Your task to perform on an android device: toggle notification dots Image 0: 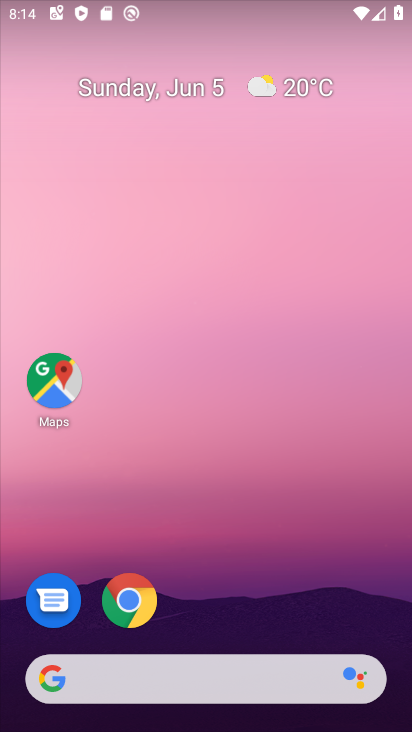
Step 0: press home button
Your task to perform on an android device: toggle notification dots Image 1: 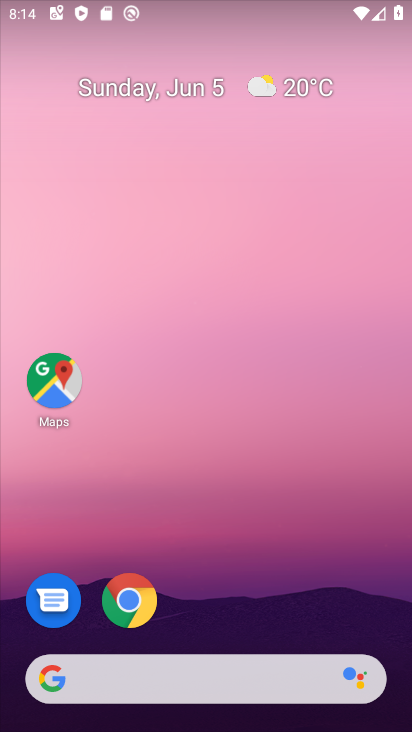
Step 1: press home button
Your task to perform on an android device: toggle notification dots Image 2: 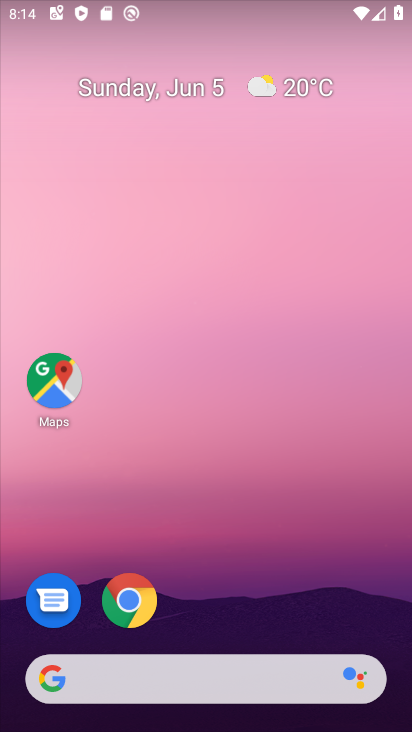
Step 2: drag from (152, 657) to (321, 182)
Your task to perform on an android device: toggle notification dots Image 3: 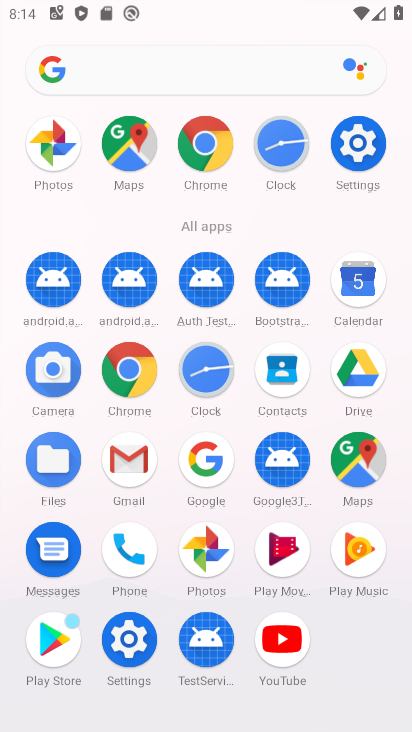
Step 3: drag from (180, 596) to (227, 453)
Your task to perform on an android device: toggle notification dots Image 4: 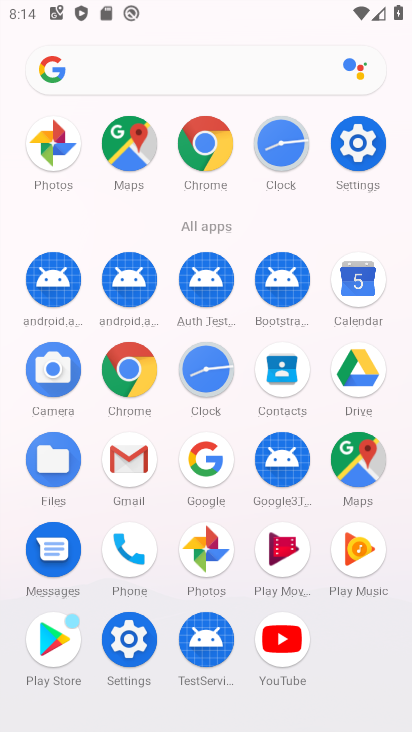
Step 4: click (127, 640)
Your task to perform on an android device: toggle notification dots Image 5: 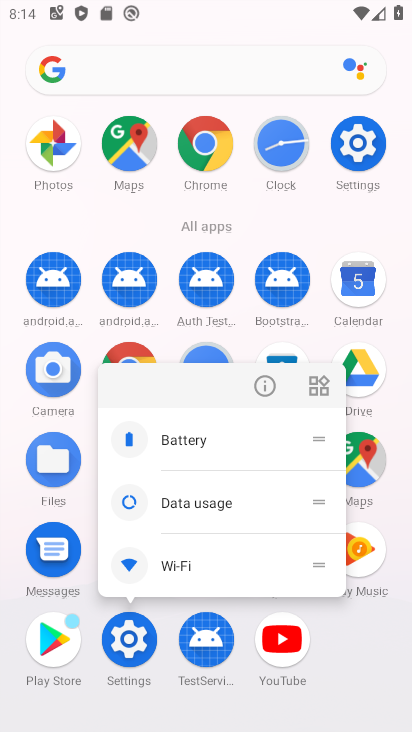
Step 5: click (130, 638)
Your task to perform on an android device: toggle notification dots Image 6: 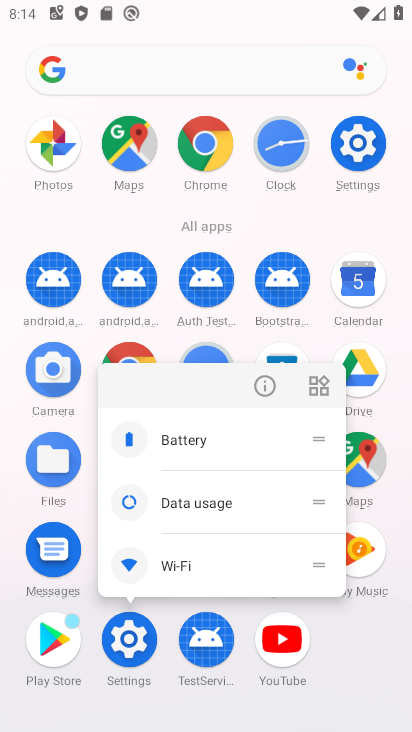
Step 6: click (134, 635)
Your task to perform on an android device: toggle notification dots Image 7: 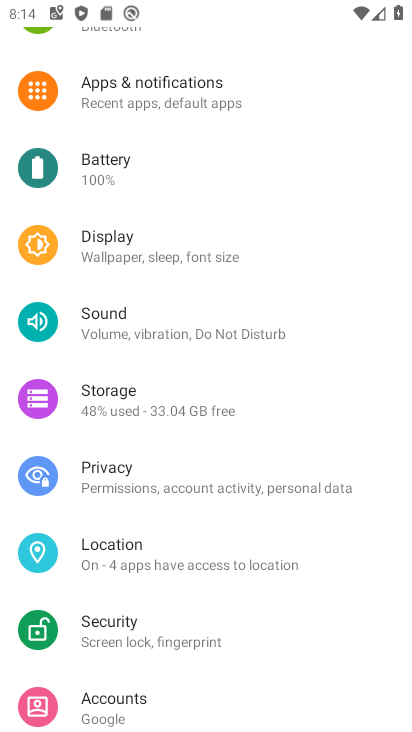
Step 7: drag from (206, 661) to (293, 361)
Your task to perform on an android device: toggle notification dots Image 8: 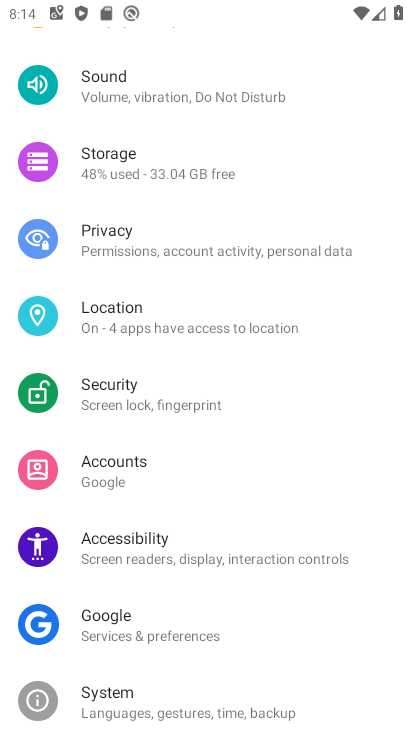
Step 8: drag from (203, 254) to (163, 609)
Your task to perform on an android device: toggle notification dots Image 9: 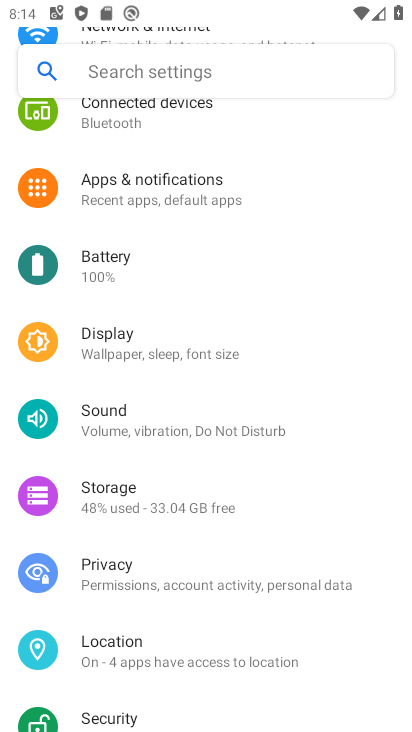
Step 9: click (202, 211)
Your task to perform on an android device: toggle notification dots Image 10: 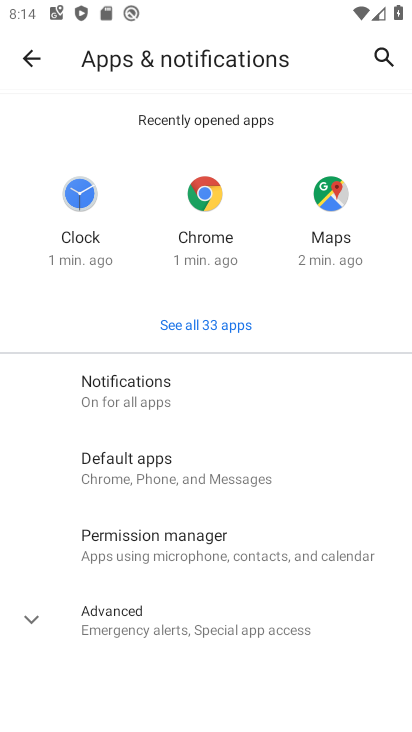
Step 10: click (227, 399)
Your task to perform on an android device: toggle notification dots Image 11: 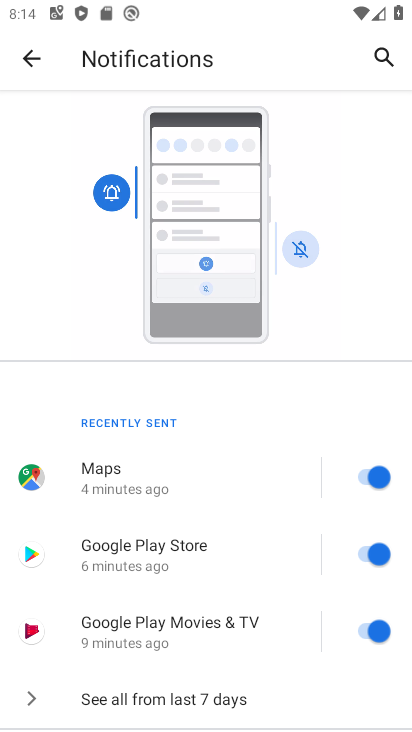
Step 11: drag from (148, 663) to (259, 310)
Your task to perform on an android device: toggle notification dots Image 12: 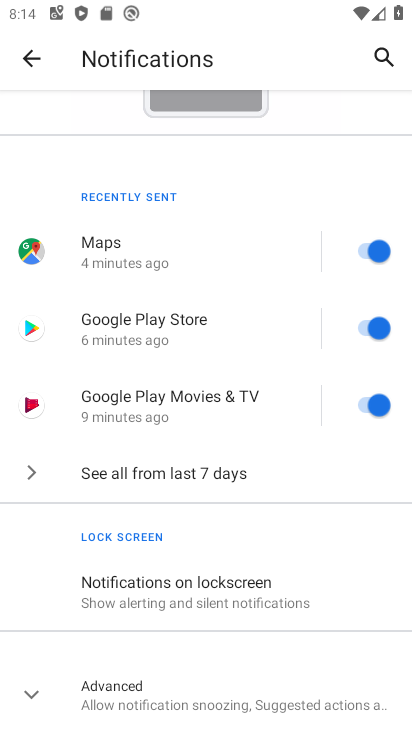
Step 12: click (212, 688)
Your task to perform on an android device: toggle notification dots Image 13: 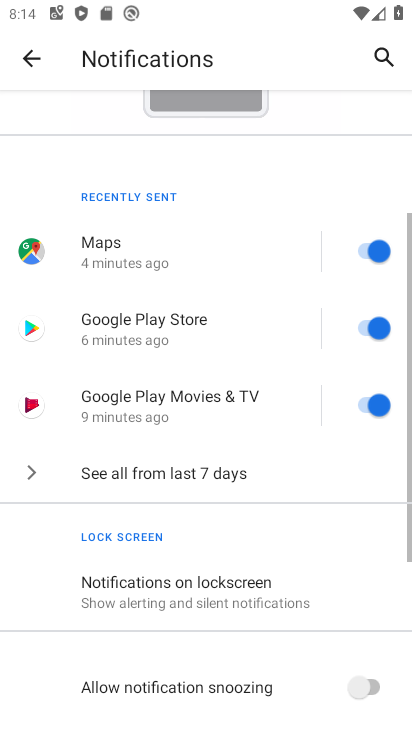
Step 13: drag from (222, 679) to (302, 409)
Your task to perform on an android device: toggle notification dots Image 14: 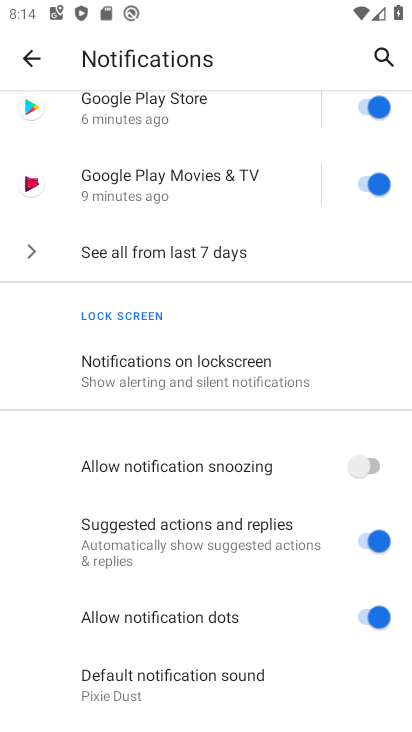
Step 14: click (361, 616)
Your task to perform on an android device: toggle notification dots Image 15: 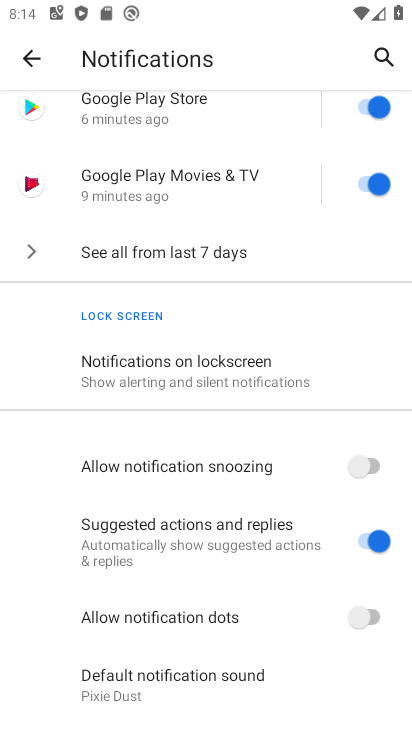
Step 15: task complete